Your task to perform on an android device: Go to battery settings Image 0: 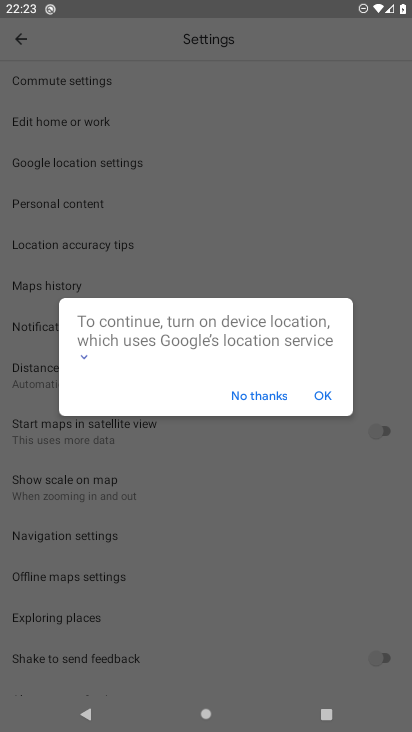
Step 0: press home button
Your task to perform on an android device: Go to battery settings Image 1: 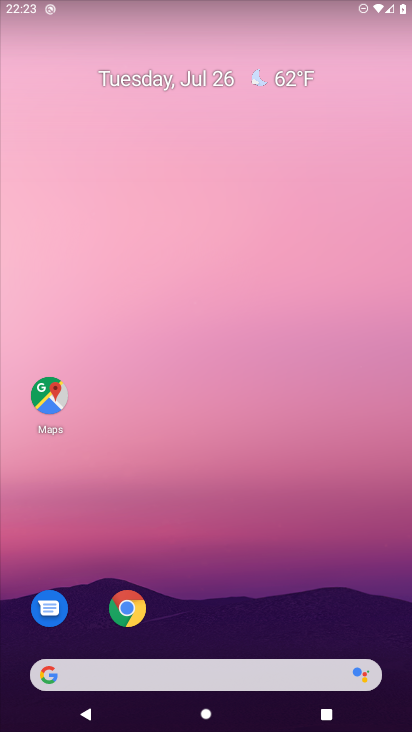
Step 1: drag from (30, 692) to (208, 39)
Your task to perform on an android device: Go to battery settings Image 2: 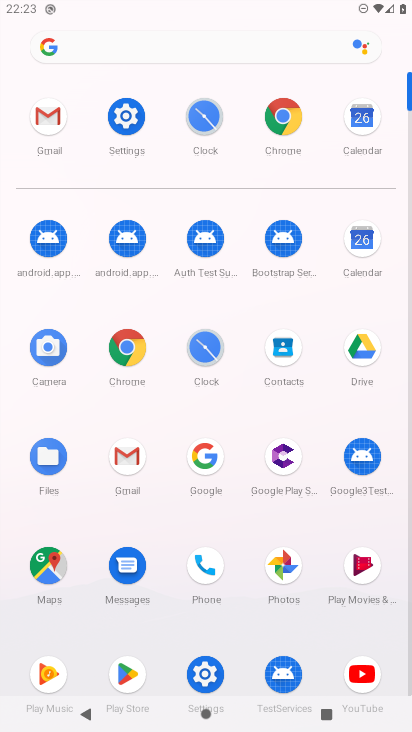
Step 2: click (206, 673)
Your task to perform on an android device: Go to battery settings Image 3: 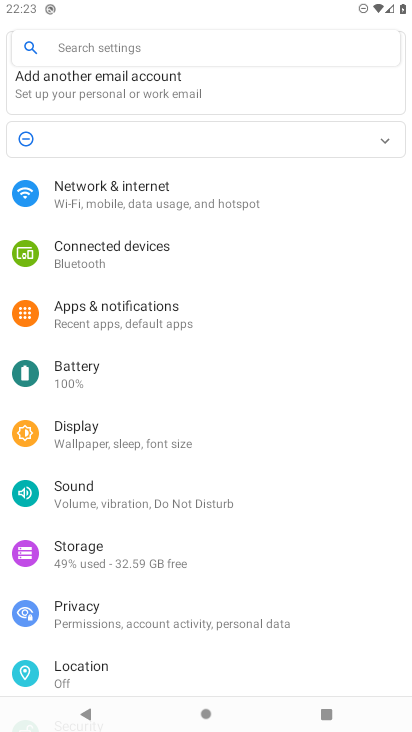
Step 3: click (103, 371)
Your task to perform on an android device: Go to battery settings Image 4: 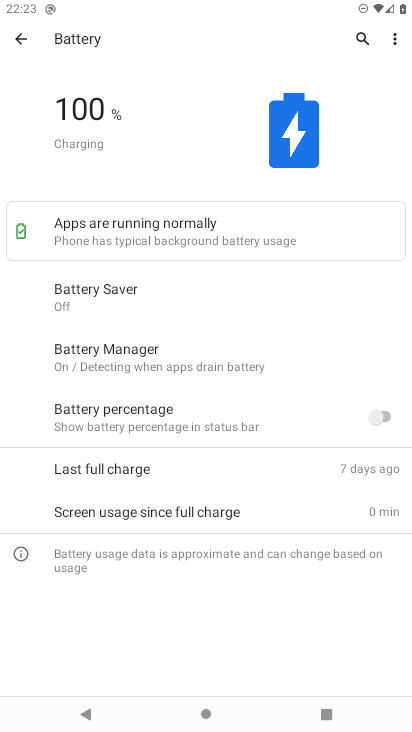
Step 4: task complete